Your task to perform on an android device: Do I have any events tomorrow? Image 0: 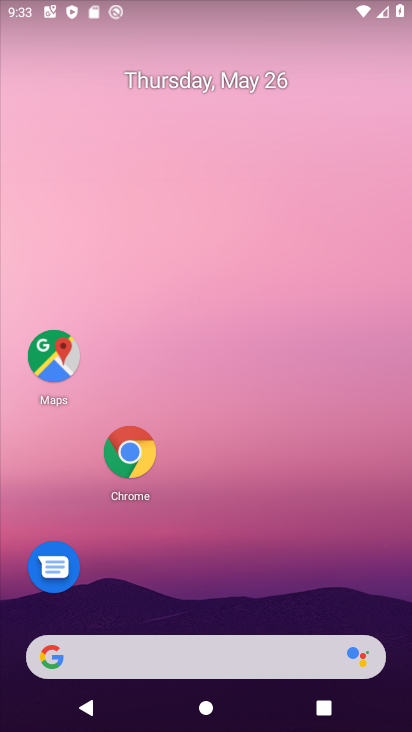
Step 0: press home button
Your task to perform on an android device: Do I have any events tomorrow? Image 1: 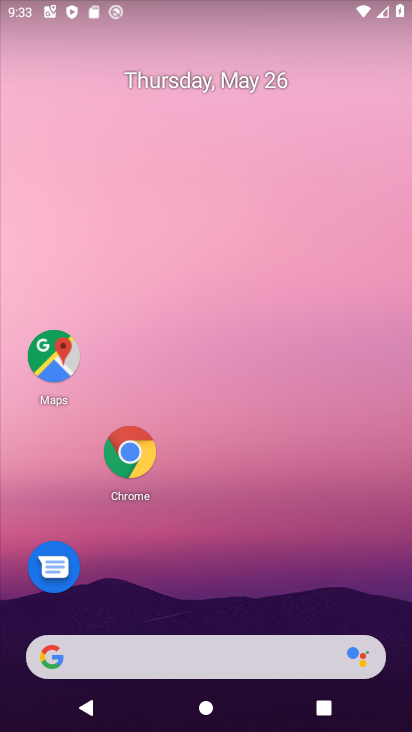
Step 1: drag from (171, 651) to (319, 176)
Your task to perform on an android device: Do I have any events tomorrow? Image 2: 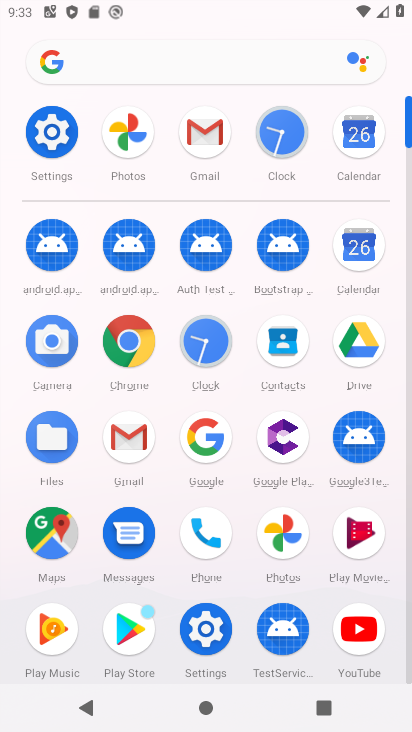
Step 2: click (369, 251)
Your task to perform on an android device: Do I have any events tomorrow? Image 3: 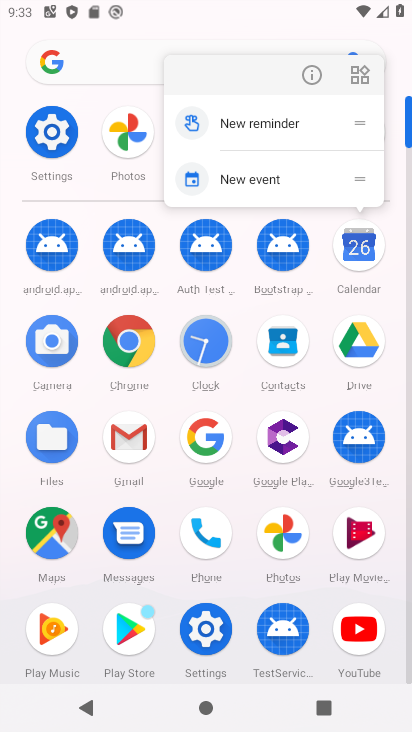
Step 3: click (356, 257)
Your task to perform on an android device: Do I have any events tomorrow? Image 4: 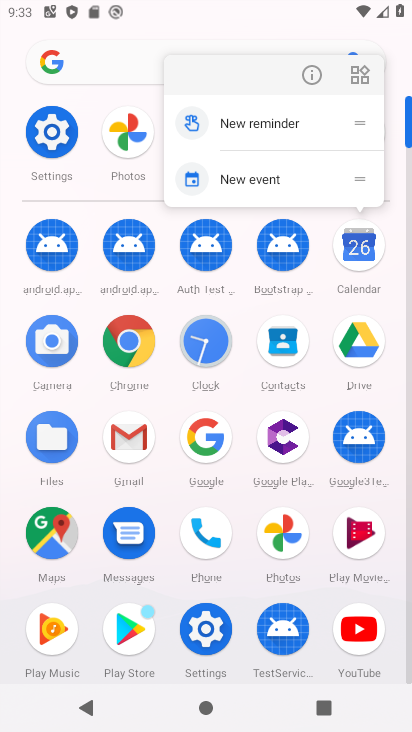
Step 4: click (353, 251)
Your task to perform on an android device: Do I have any events tomorrow? Image 5: 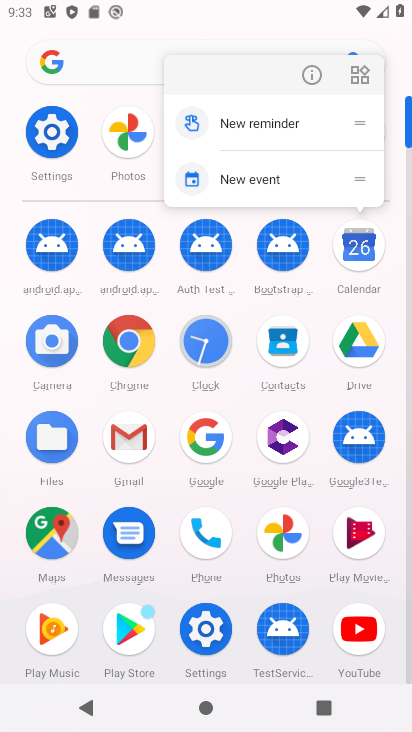
Step 5: click (358, 245)
Your task to perform on an android device: Do I have any events tomorrow? Image 6: 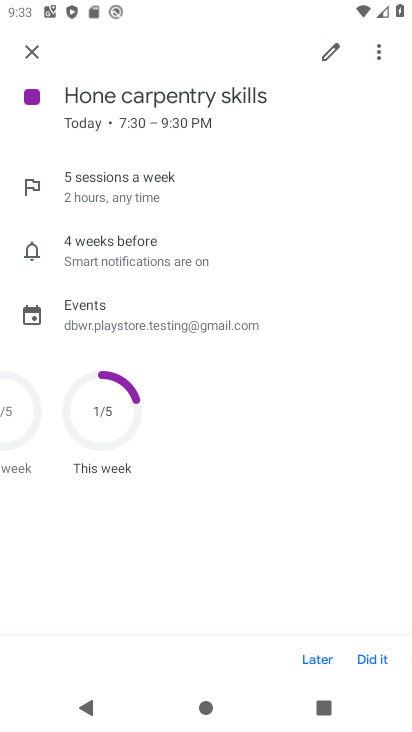
Step 6: click (38, 48)
Your task to perform on an android device: Do I have any events tomorrow? Image 7: 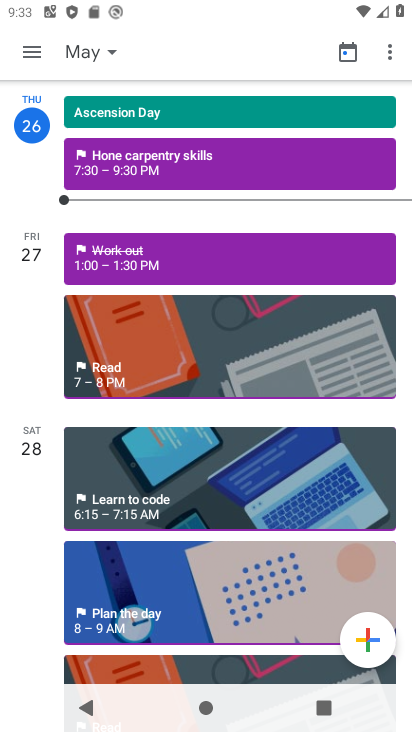
Step 7: click (81, 45)
Your task to perform on an android device: Do I have any events tomorrow? Image 8: 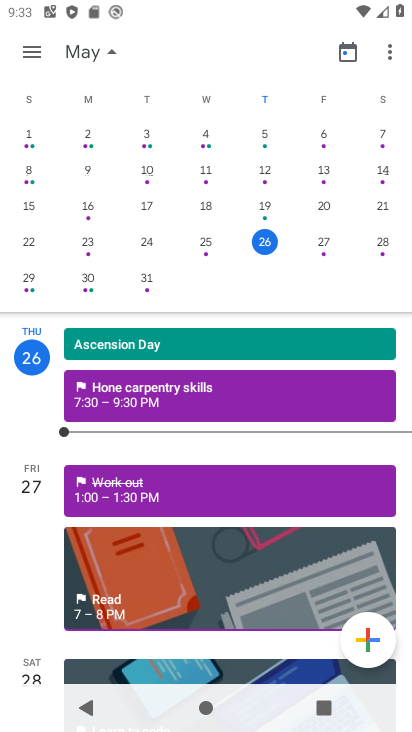
Step 8: click (322, 242)
Your task to perform on an android device: Do I have any events tomorrow? Image 9: 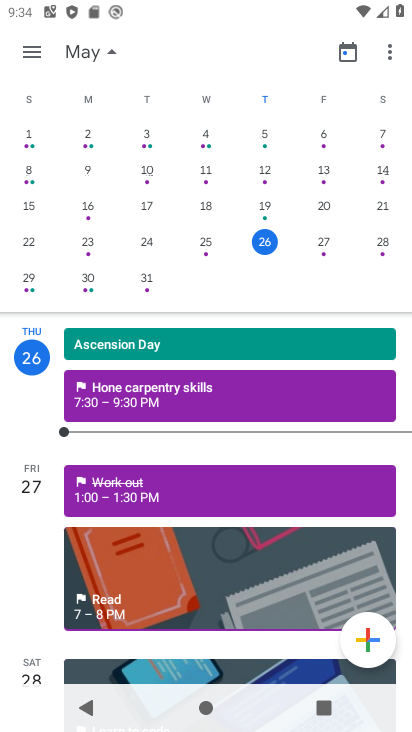
Step 9: click (323, 243)
Your task to perform on an android device: Do I have any events tomorrow? Image 10: 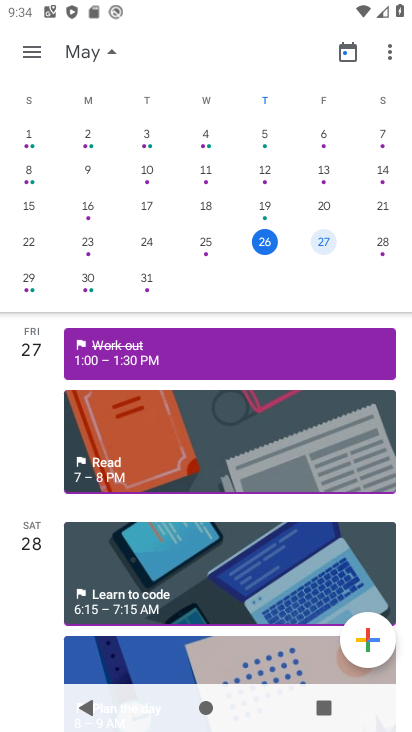
Step 10: click (31, 45)
Your task to perform on an android device: Do I have any events tomorrow? Image 11: 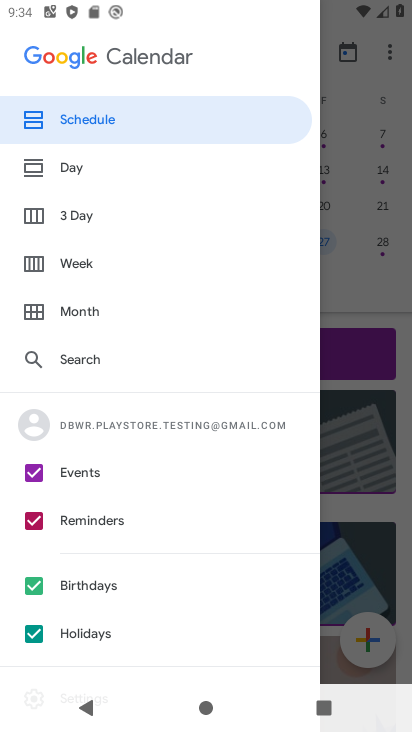
Step 11: click (101, 116)
Your task to perform on an android device: Do I have any events tomorrow? Image 12: 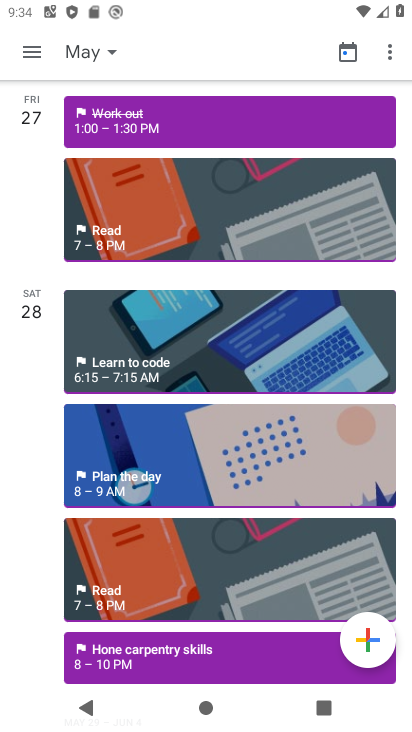
Step 12: click (171, 115)
Your task to perform on an android device: Do I have any events tomorrow? Image 13: 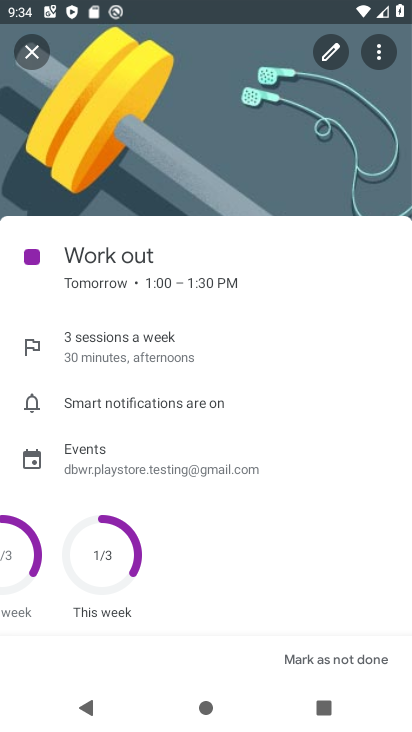
Step 13: task complete